Your task to perform on an android device: Find coffee shops on Maps Image 0: 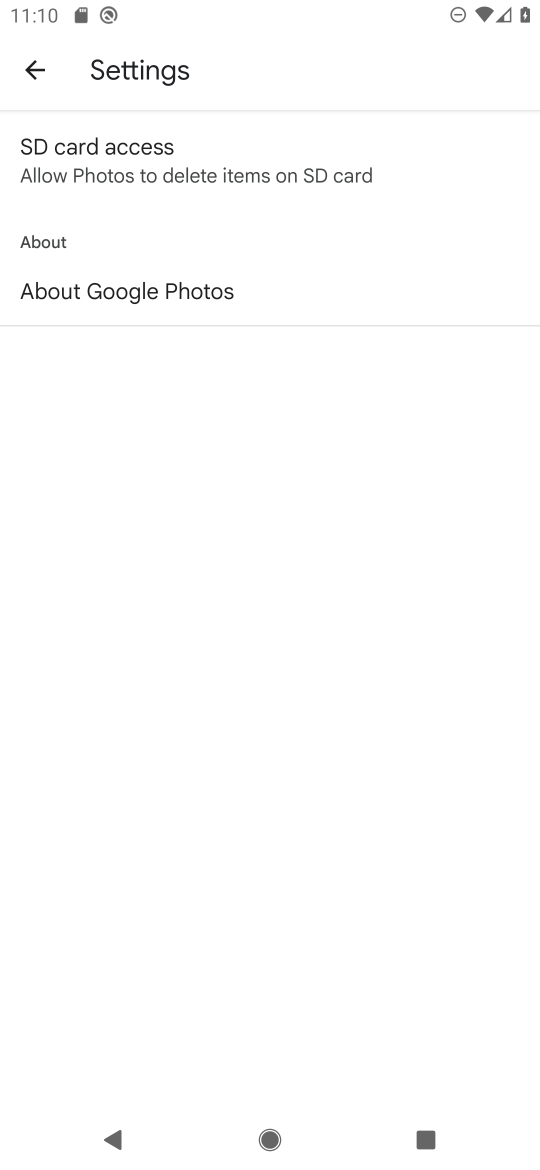
Step 0: press home button
Your task to perform on an android device: Find coffee shops on Maps Image 1: 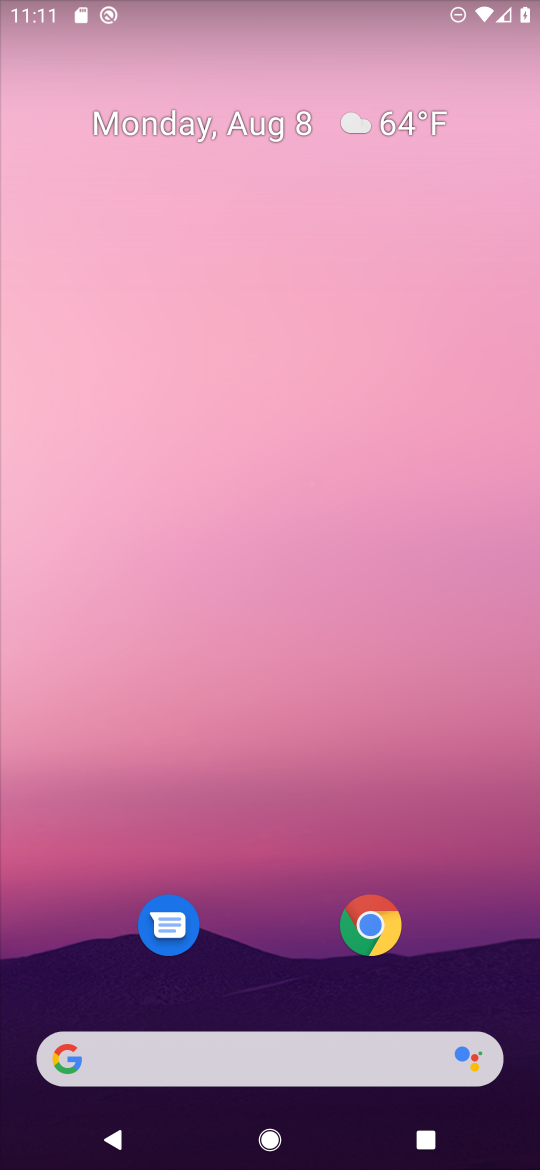
Step 1: drag from (255, 964) to (259, 169)
Your task to perform on an android device: Find coffee shops on Maps Image 2: 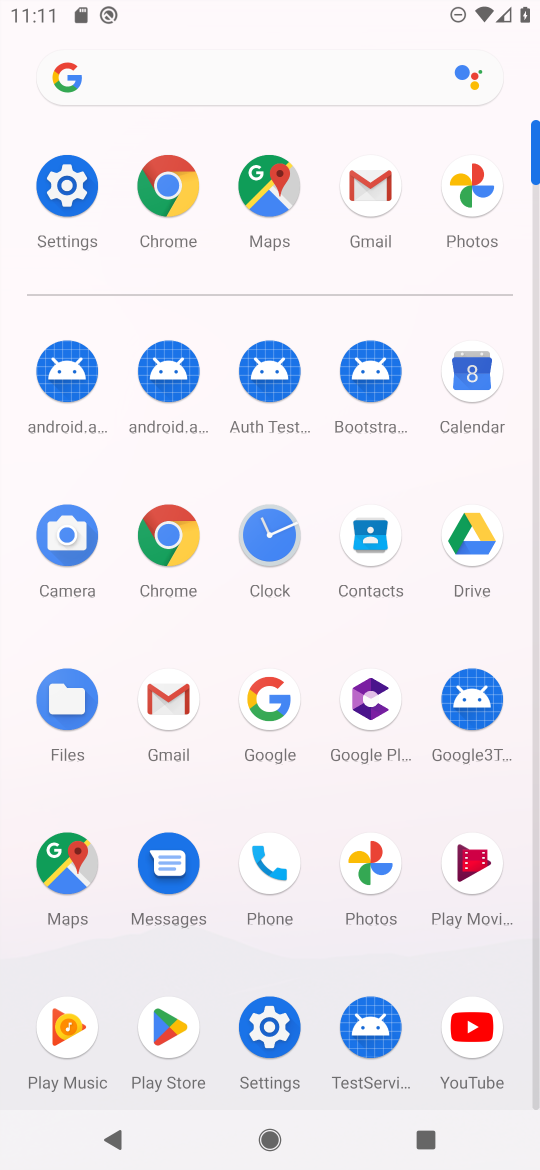
Step 2: click (70, 869)
Your task to perform on an android device: Find coffee shops on Maps Image 3: 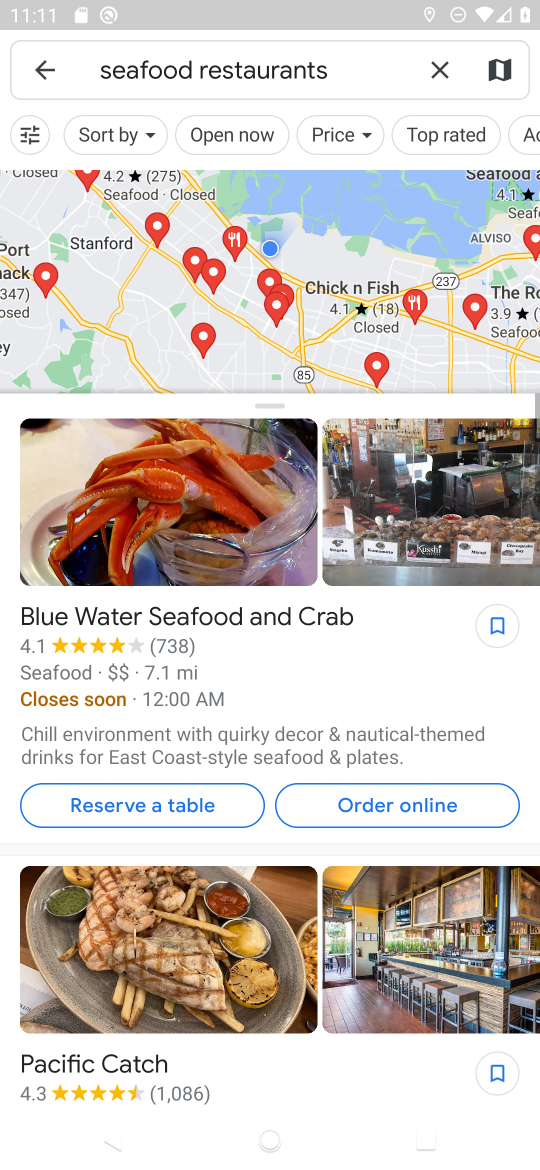
Step 3: click (436, 63)
Your task to perform on an android device: Find coffee shops on Maps Image 4: 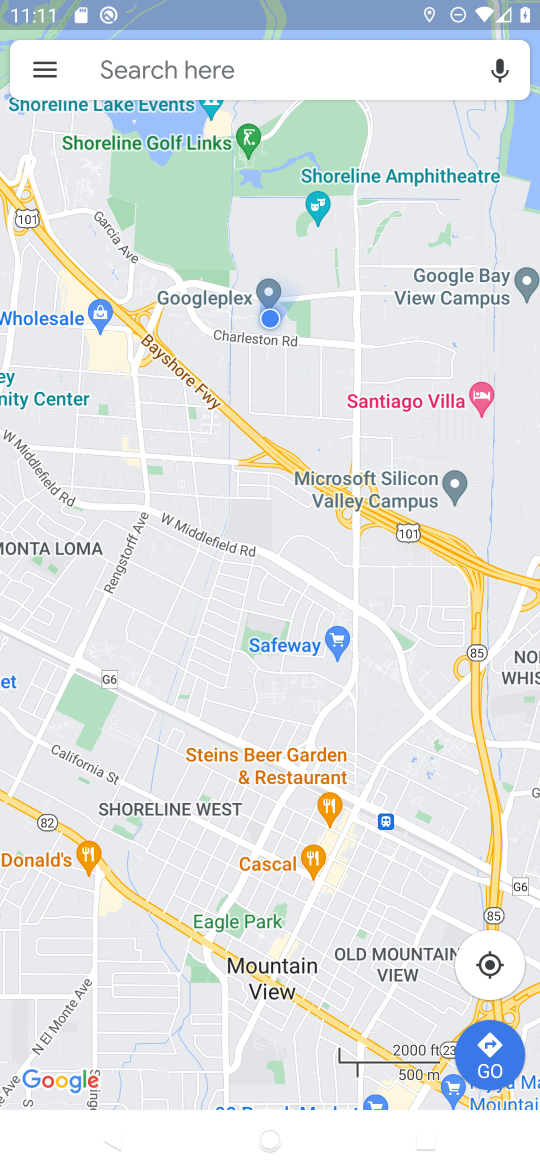
Step 4: click (365, 62)
Your task to perform on an android device: Find coffee shops on Maps Image 5: 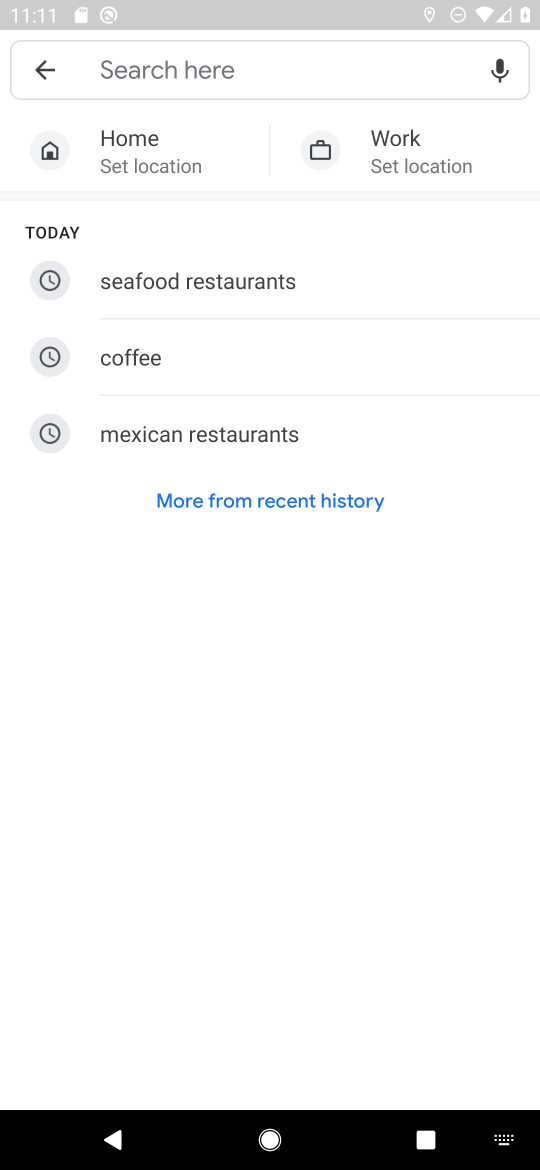
Step 5: type "coffee shops"
Your task to perform on an android device: Find coffee shops on Maps Image 6: 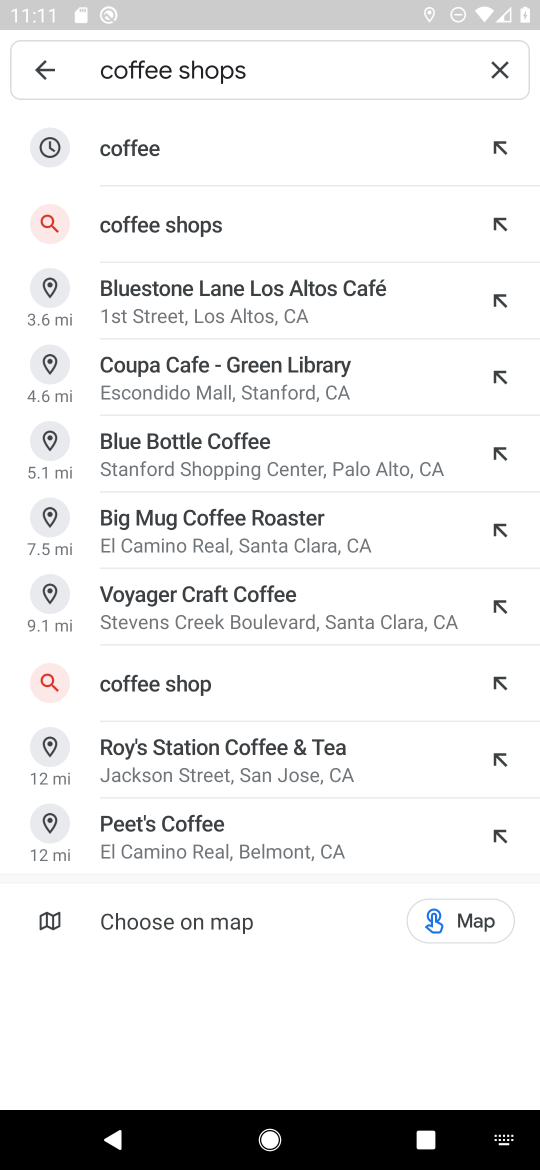
Step 6: click (155, 222)
Your task to perform on an android device: Find coffee shops on Maps Image 7: 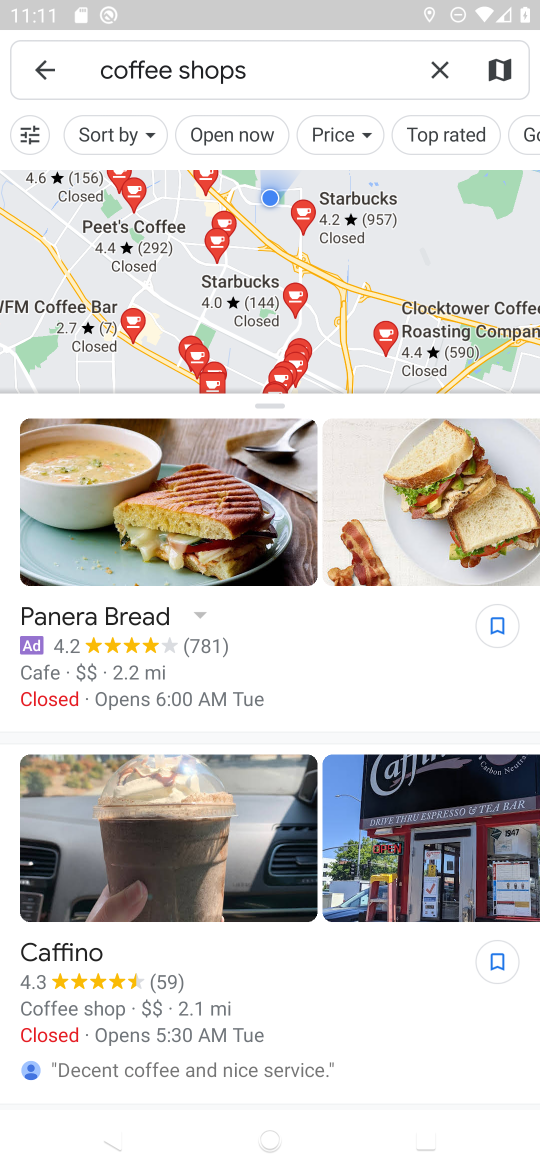
Step 7: task complete